Your task to perform on an android device: toggle notification dots Image 0: 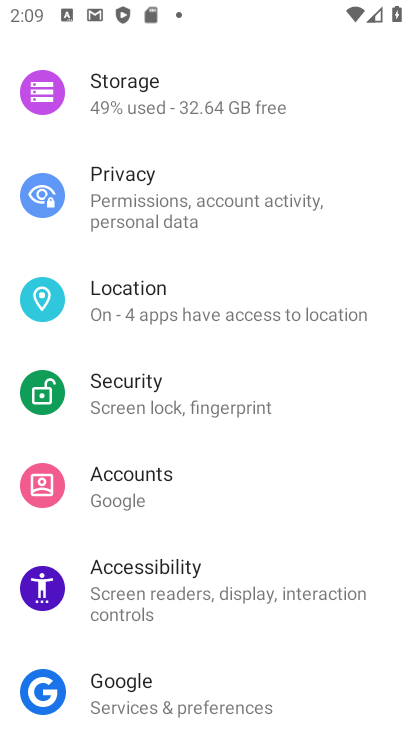
Step 0: drag from (246, 247) to (232, 577)
Your task to perform on an android device: toggle notification dots Image 1: 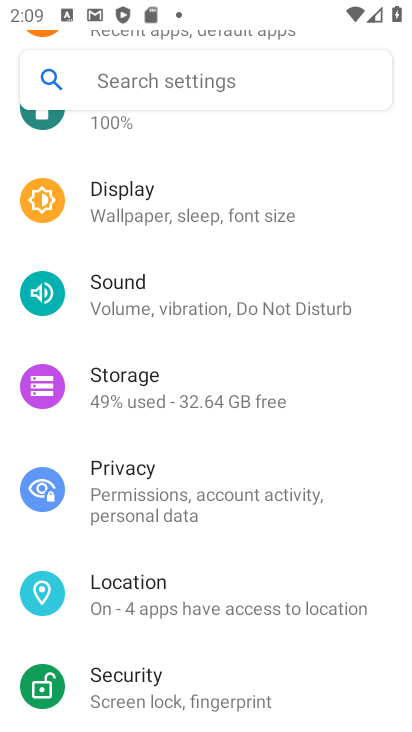
Step 1: drag from (291, 309) to (233, 625)
Your task to perform on an android device: toggle notification dots Image 2: 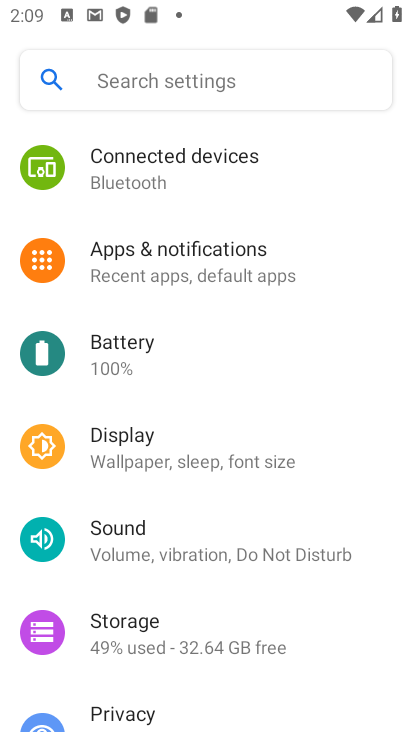
Step 2: drag from (283, 284) to (235, 640)
Your task to perform on an android device: toggle notification dots Image 3: 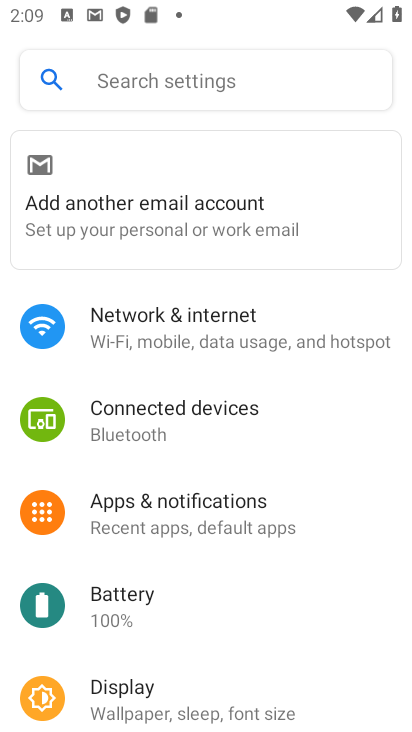
Step 3: click (242, 513)
Your task to perform on an android device: toggle notification dots Image 4: 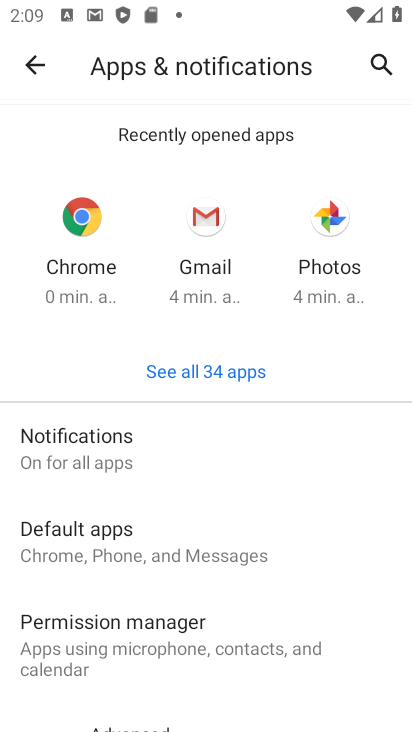
Step 4: drag from (224, 599) to (278, 312)
Your task to perform on an android device: toggle notification dots Image 5: 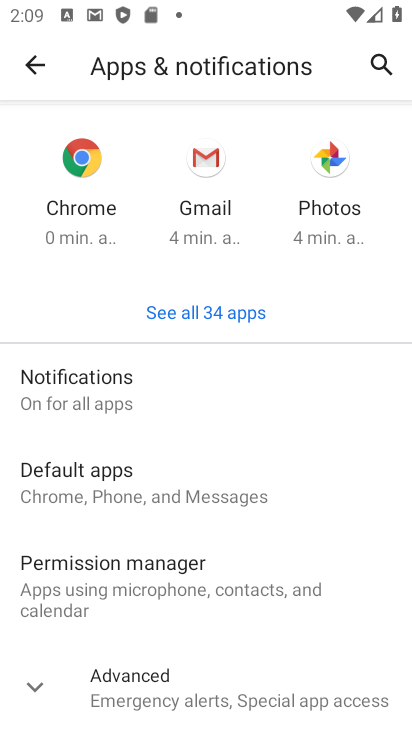
Step 5: click (60, 395)
Your task to perform on an android device: toggle notification dots Image 6: 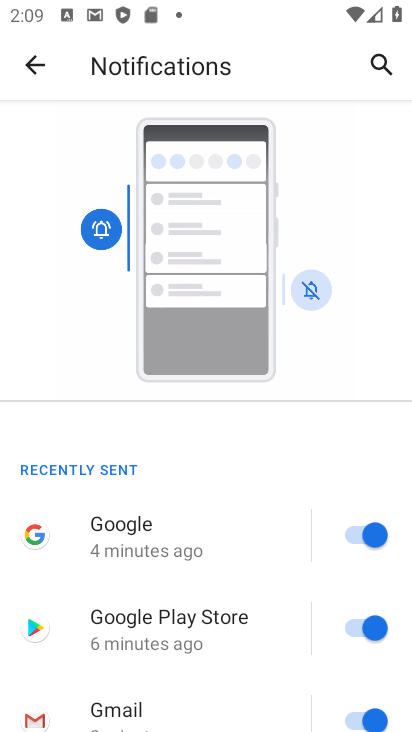
Step 6: drag from (186, 636) to (157, 217)
Your task to perform on an android device: toggle notification dots Image 7: 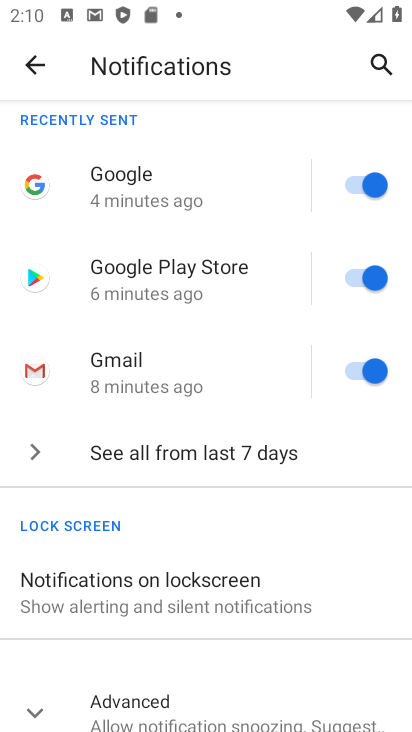
Step 7: drag from (209, 634) to (218, 332)
Your task to perform on an android device: toggle notification dots Image 8: 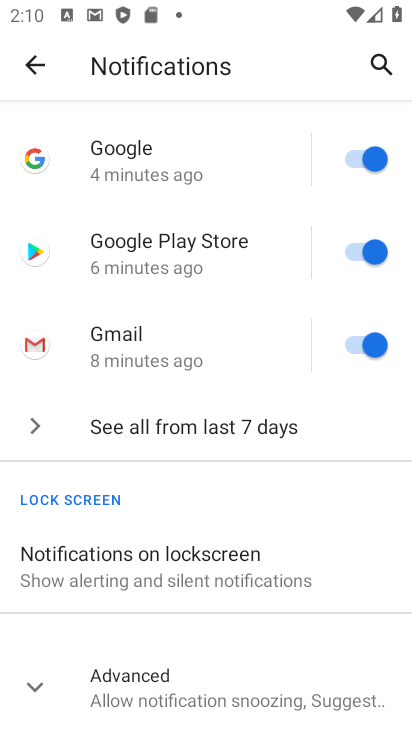
Step 8: click (176, 700)
Your task to perform on an android device: toggle notification dots Image 9: 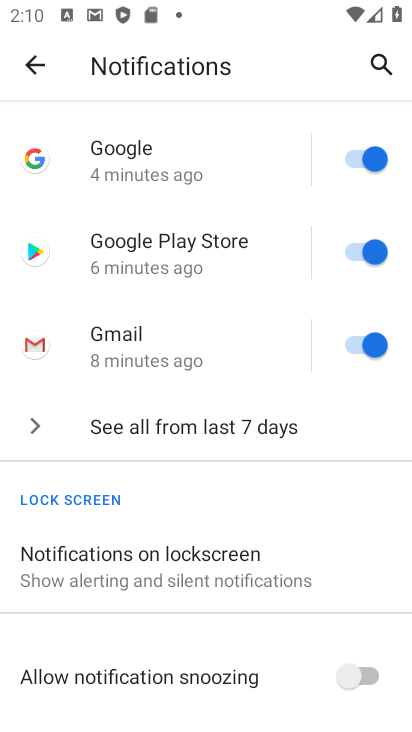
Step 9: drag from (225, 601) to (208, 224)
Your task to perform on an android device: toggle notification dots Image 10: 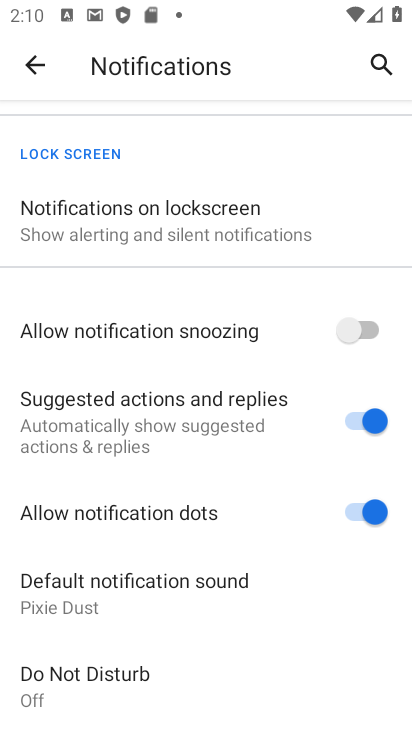
Step 10: drag from (233, 582) to (251, 432)
Your task to perform on an android device: toggle notification dots Image 11: 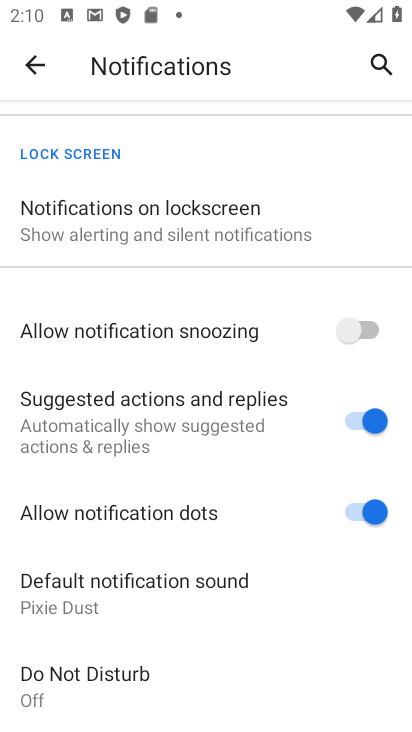
Step 11: click (342, 517)
Your task to perform on an android device: toggle notification dots Image 12: 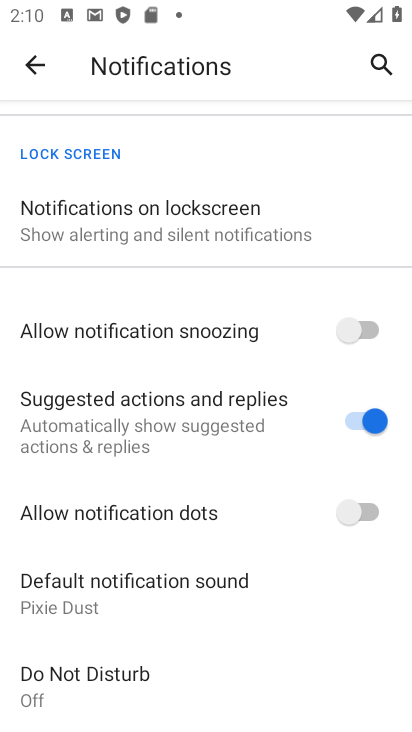
Step 12: task complete